Your task to perform on an android device: Go to Yahoo.com Image 0: 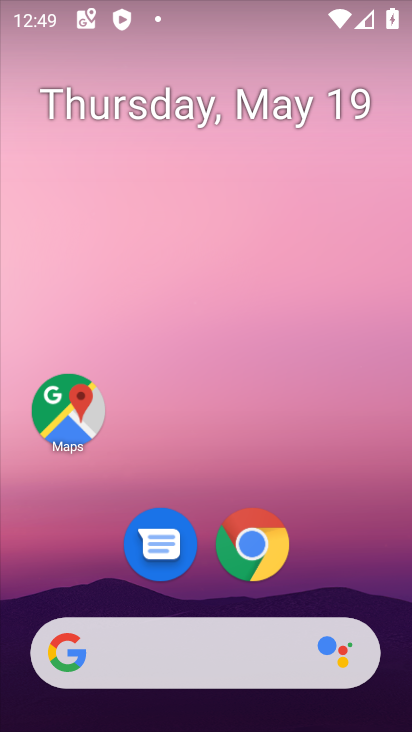
Step 0: drag from (259, 591) to (221, 131)
Your task to perform on an android device: Go to Yahoo.com Image 1: 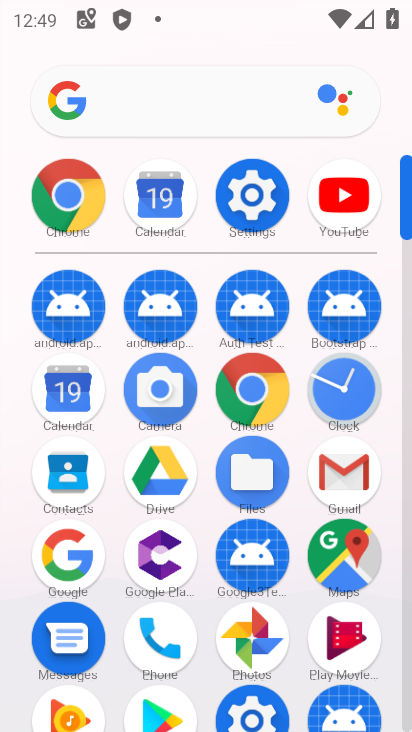
Step 1: click (254, 380)
Your task to perform on an android device: Go to Yahoo.com Image 2: 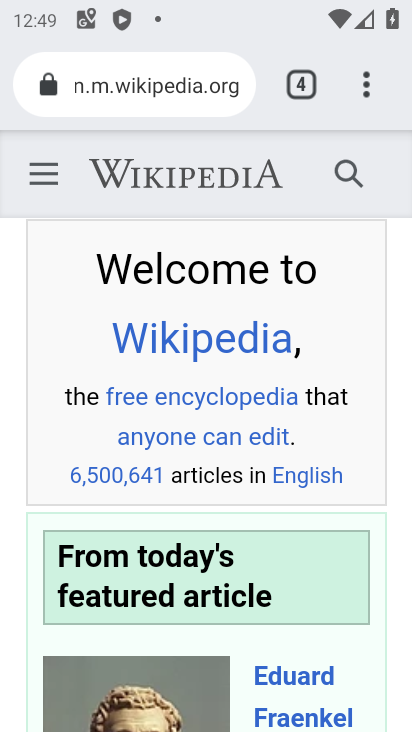
Step 2: drag from (359, 76) to (275, 306)
Your task to perform on an android device: Go to Yahoo.com Image 3: 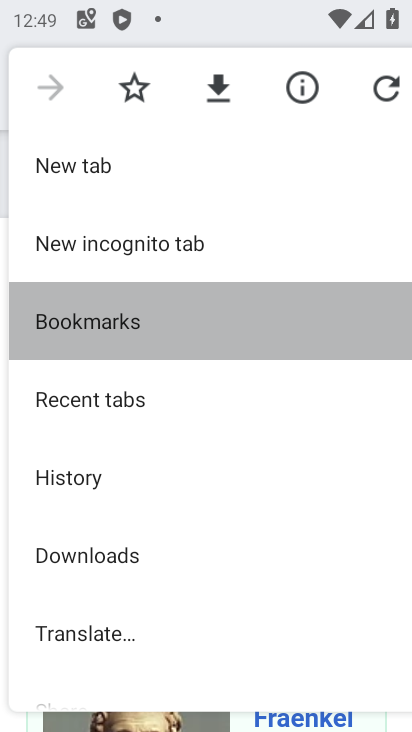
Step 3: click (286, 298)
Your task to perform on an android device: Go to Yahoo.com Image 4: 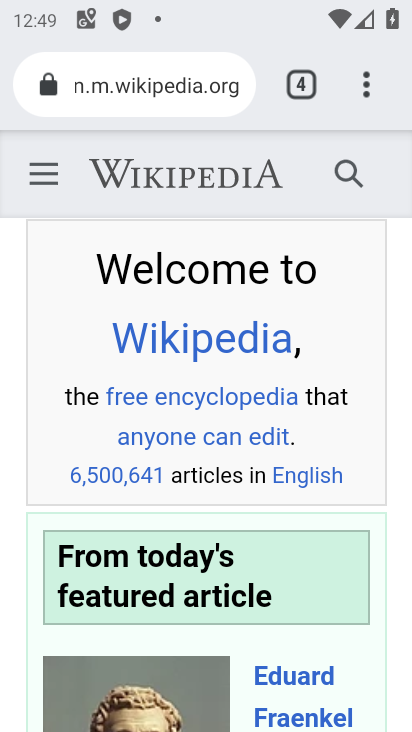
Step 4: drag from (304, 216) to (332, 125)
Your task to perform on an android device: Go to Yahoo.com Image 5: 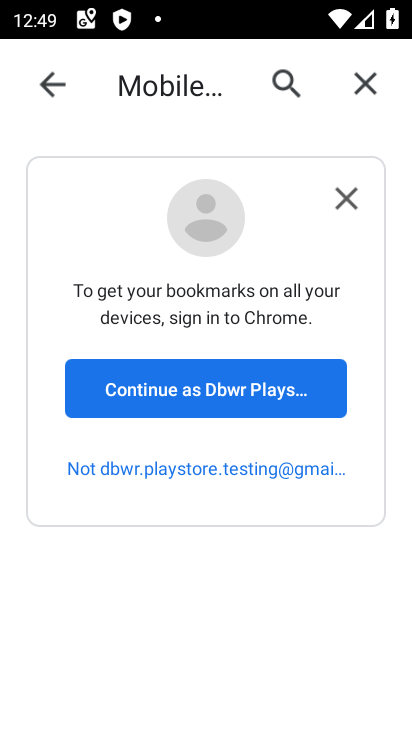
Step 5: press back button
Your task to perform on an android device: Go to Yahoo.com Image 6: 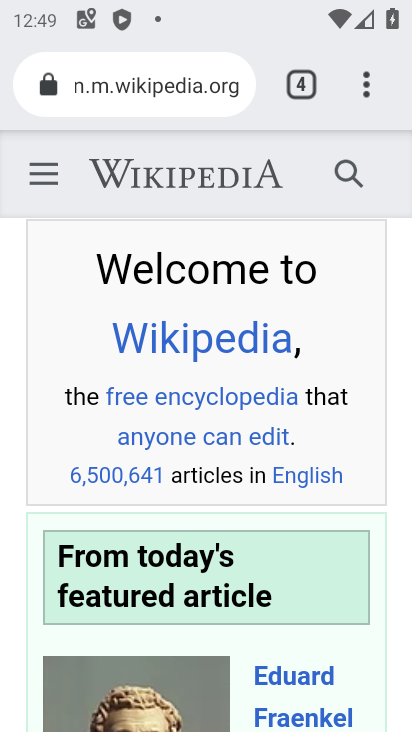
Step 6: click (371, 100)
Your task to perform on an android device: Go to Yahoo.com Image 7: 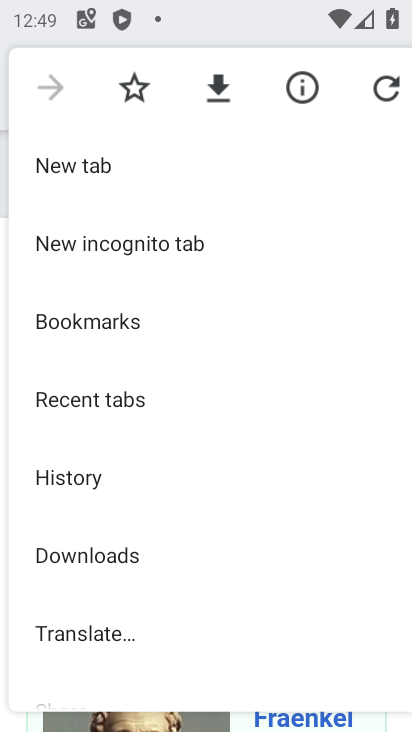
Step 7: press back button
Your task to perform on an android device: Go to Yahoo.com Image 8: 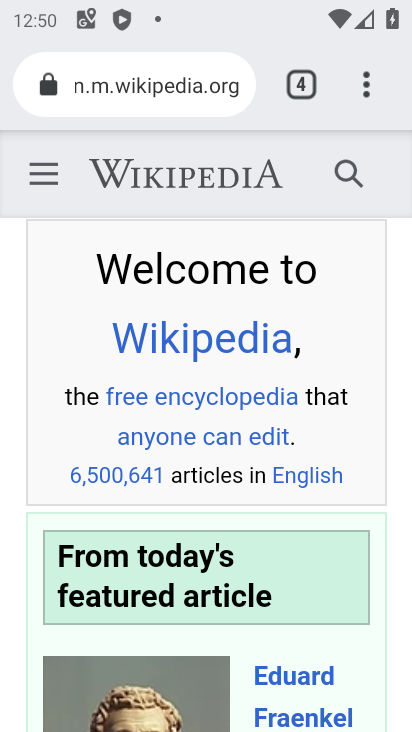
Step 8: drag from (363, 85) to (263, 147)
Your task to perform on an android device: Go to Yahoo.com Image 9: 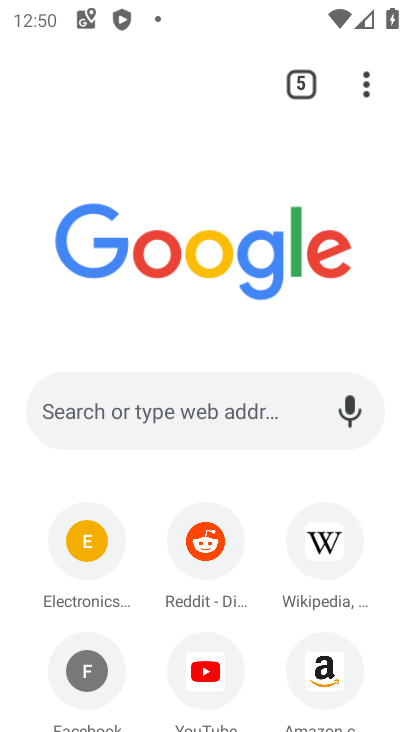
Step 9: drag from (338, 556) to (330, 104)
Your task to perform on an android device: Go to Yahoo.com Image 10: 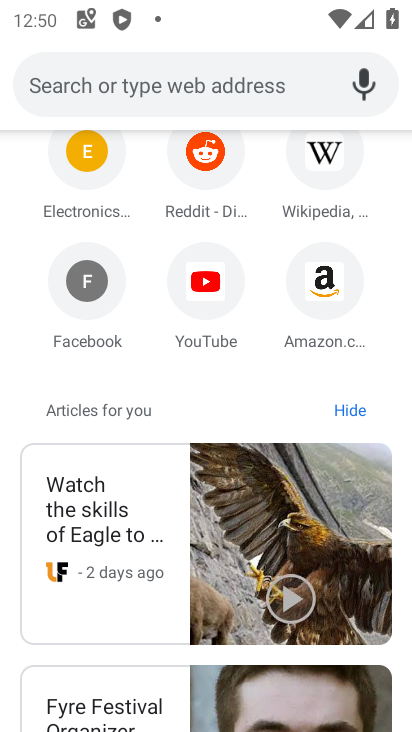
Step 10: click (216, 304)
Your task to perform on an android device: Go to Yahoo.com Image 11: 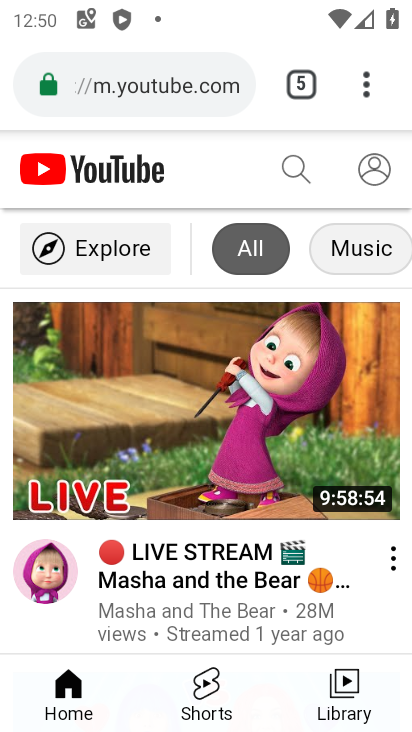
Step 11: task complete